Your task to perform on an android device: Turn off the flashlight Image 0: 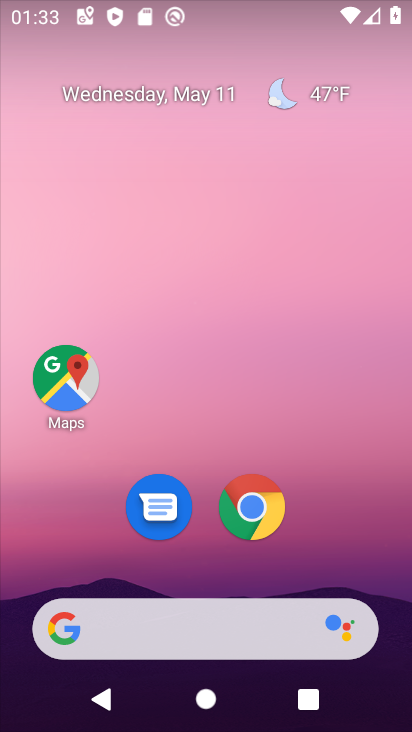
Step 0: drag from (332, 526) to (408, 302)
Your task to perform on an android device: Turn off the flashlight Image 1: 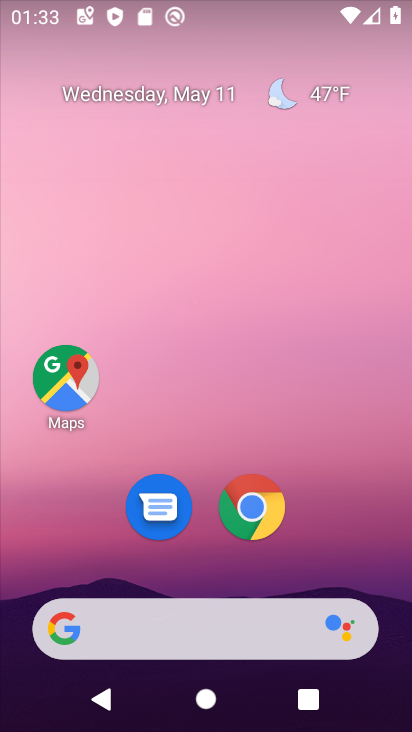
Step 1: drag from (327, 467) to (310, 95)
Your task to perform on an android device: Turn off the flashlight Image 2: 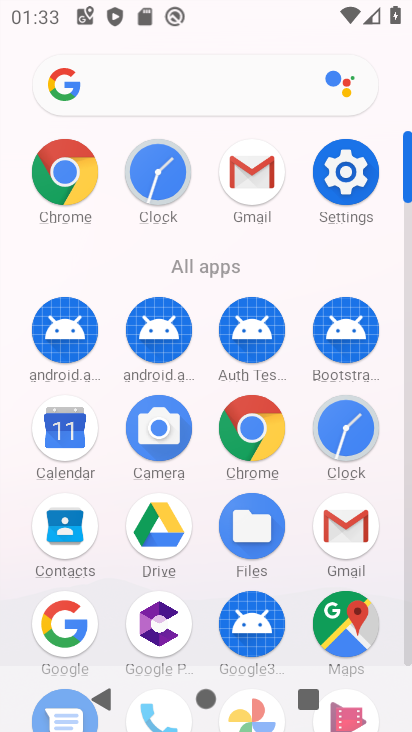
Step 2: click (344, 171)
Your task to perform on an android device: Turn off the flashlight Image 3: 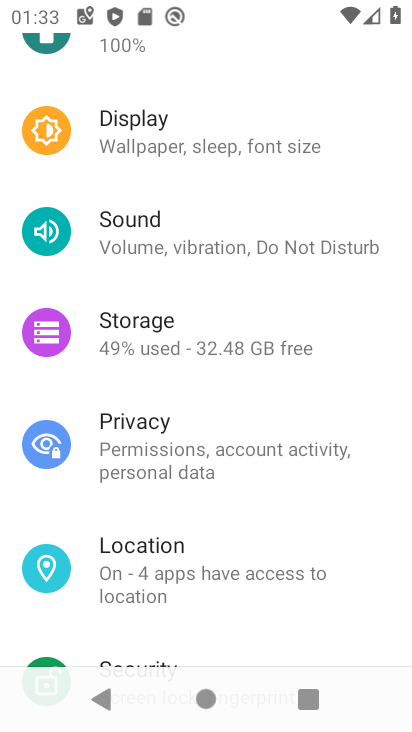
Step 3: drag from (186, 306) to (233, 679)
Your task to perform on an android device: Turn off the flashlight Image 4: 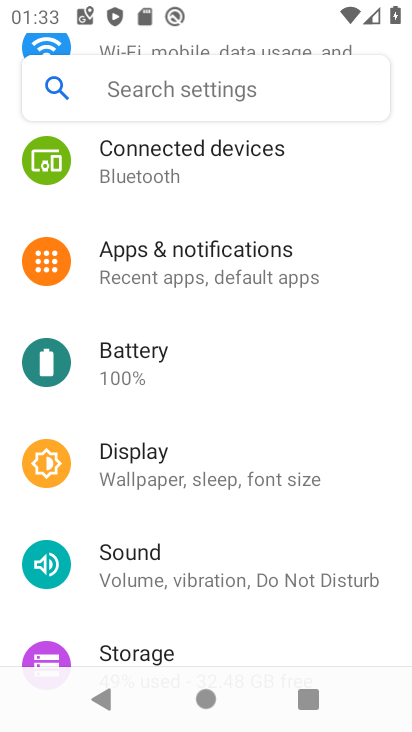
Step 4: click (138, 348)
Your task to perform on an android device: Turn off the flashlight Image 5: 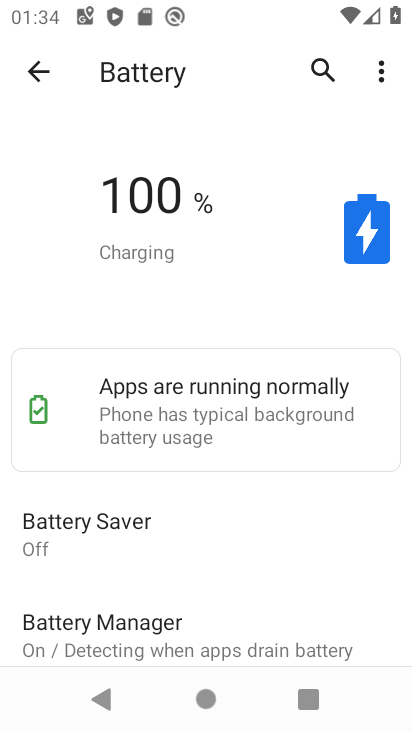
Step 5: task complete